Your task to perform on an android device: Open eBay Image 0: 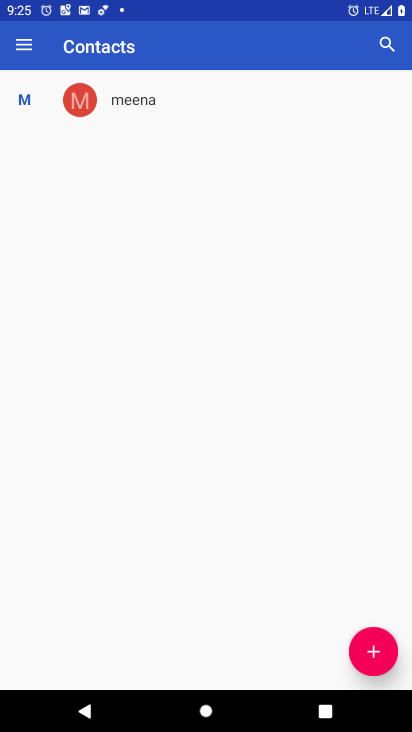
Step 0: press home button
Your task to perform on an android device: Open eBay Image 1: 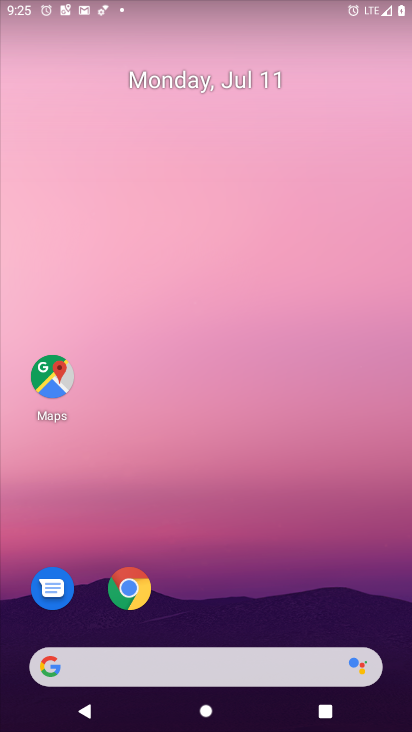
Step 1: click (132, 590)
Your task to perform on an android device: Open eBay Image 2: 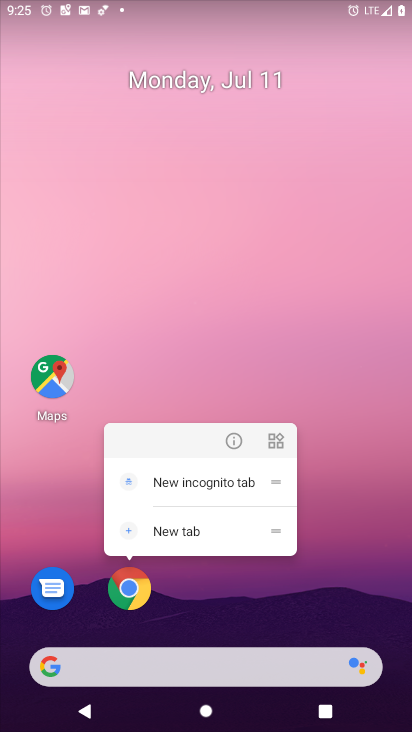
Step 2: click (108, 586)
Your task to perform on an android device: Open eBay Image 3: 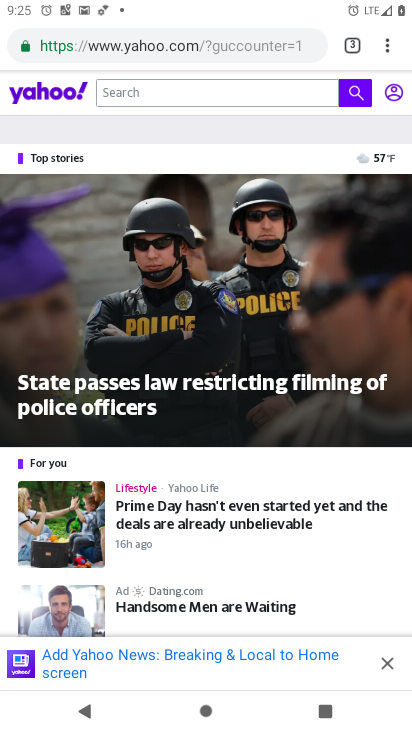
Step 3: click (385, 43)
Your task to perform on an android device: Open eBay Image 4: 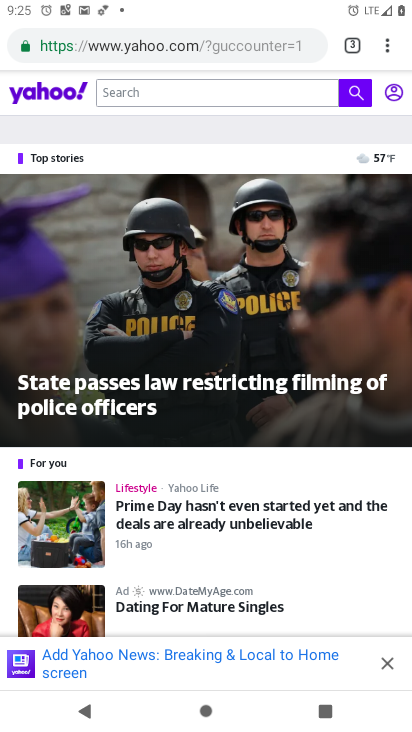
Step 4: drag from (383, 46) to (256, 157)
Your task to perform on an android device: Open eBay Image 5: 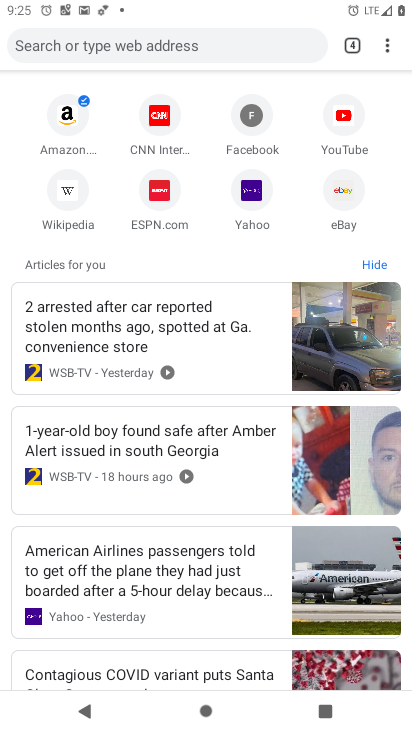
Step 5: click (334, 194)
Your task to perform on an android device: Open eBay Image 6: 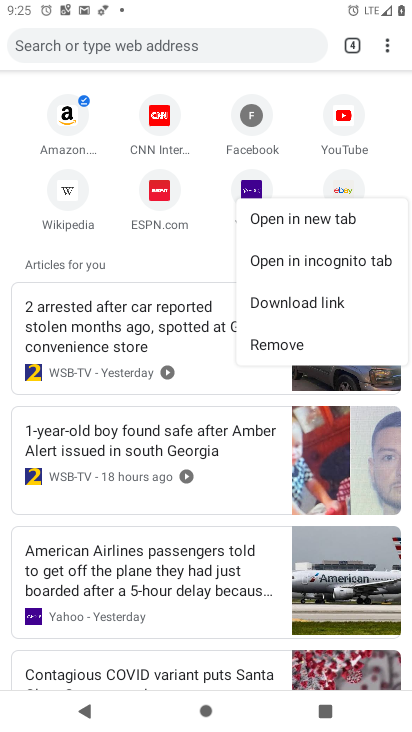
Step 6: click (347, 176)
Your task to perform on an android device: Open eBay Image 7: 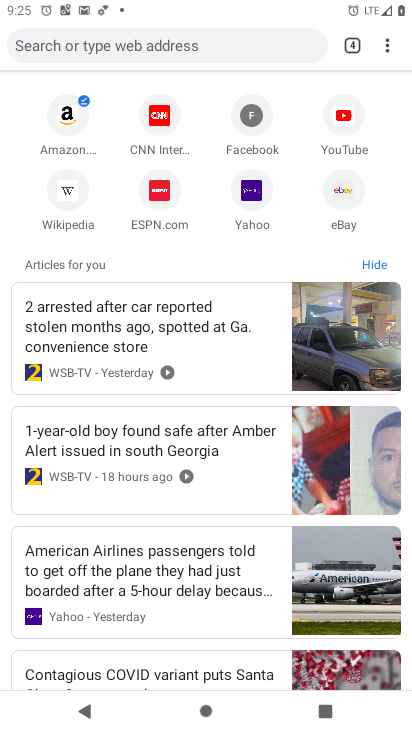
Step 7: click (340, 194)
Your task to perform on an android device: Open eBay Image 8: 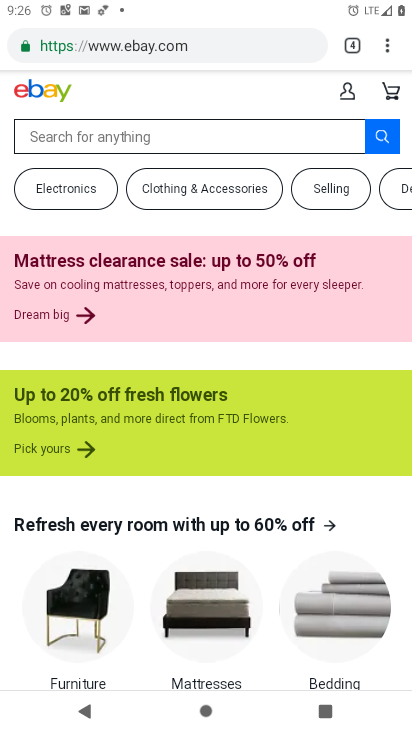
Step 8: task complete